Your task to perform on an android device: Search for pizza restaurants on Maps Image 0: 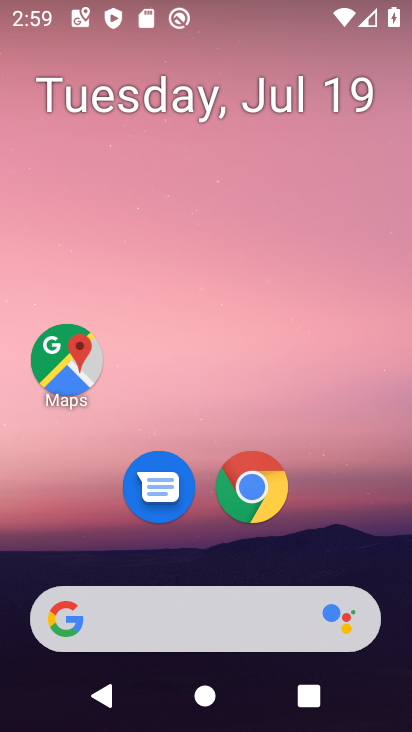
Step 0: click (71, 331)
Your task to perform on an android device: Search for pizza restaurants on Maps Image 1: 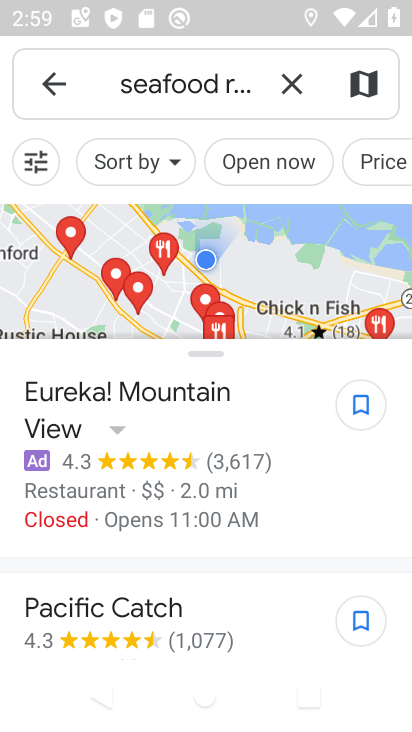
Step 1: click (282, 77)
Your task to perform on an android device: Search for pizza restaurants on Maps Image 2: 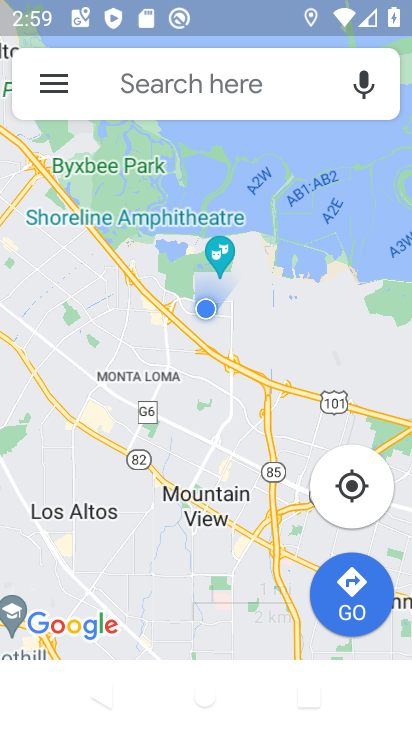
Step 2: click (165, 93)
Your task to perform on an android device: Search for pizza restaurants on Maps Image 3: 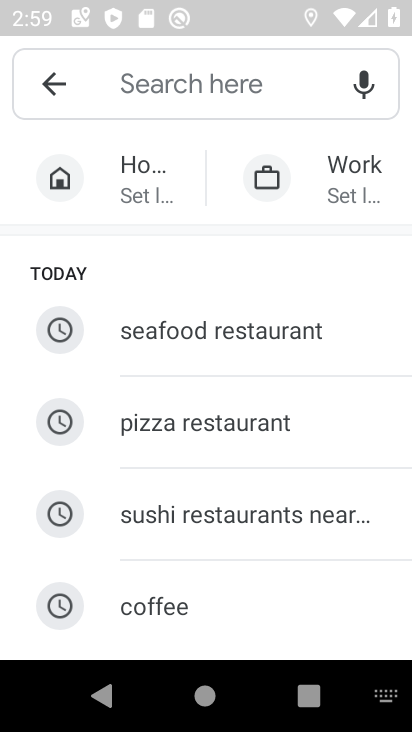
Step 3: click (154, 425)
Your task to perform on an android device: Search for pizza restaurants on Maps Image 4: 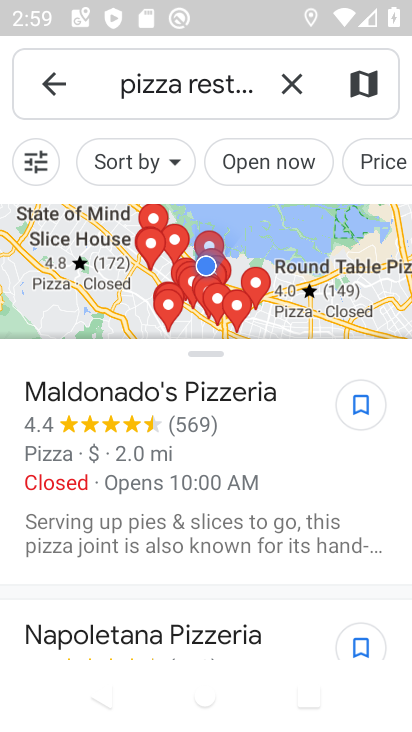
Step 4: task complete